Your task to perform on an android device: Do I have any events today? Image 0: 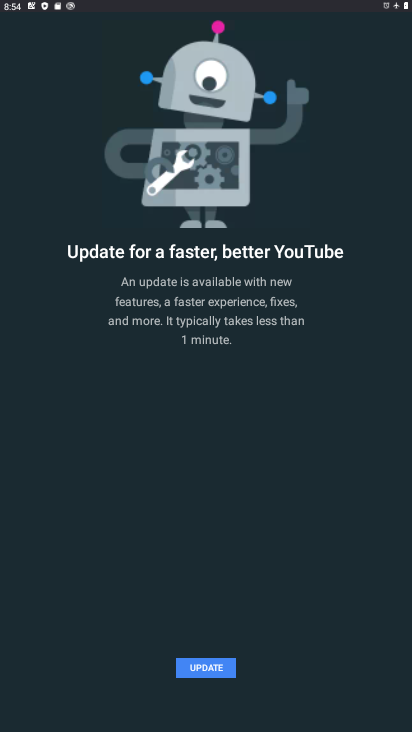
Step 0: press home button
Your task to perform on an android device: Do I have any events today? Image 1: 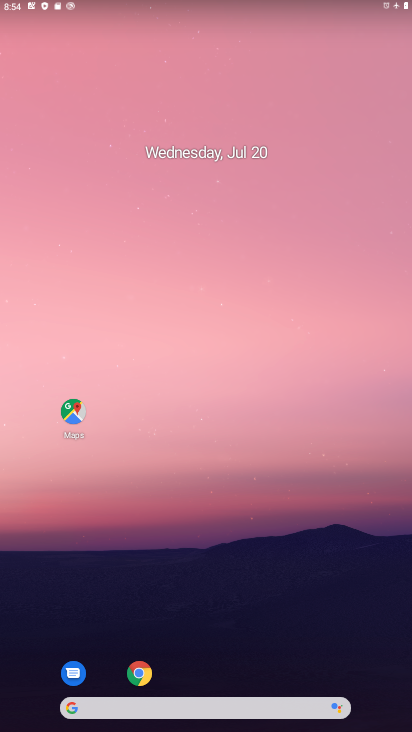
Step 1: drag from (225, 717) to (231, 249)
Your task to perform on an android device: Do I have any events today? Image 2: 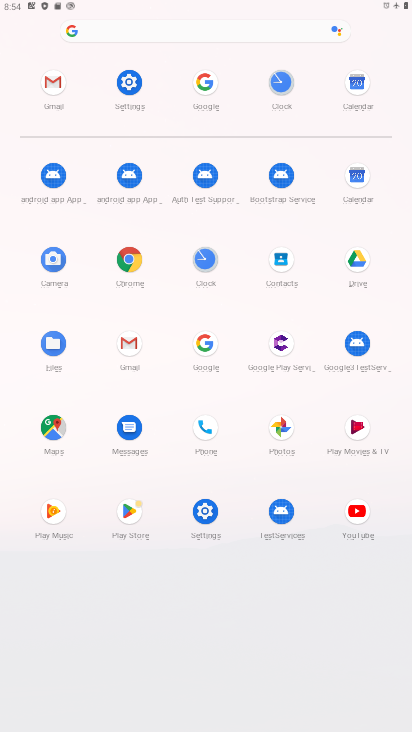
Step 2: click (356, 173)
Your task to perform on an android device: Do I have any events today? Image 3: 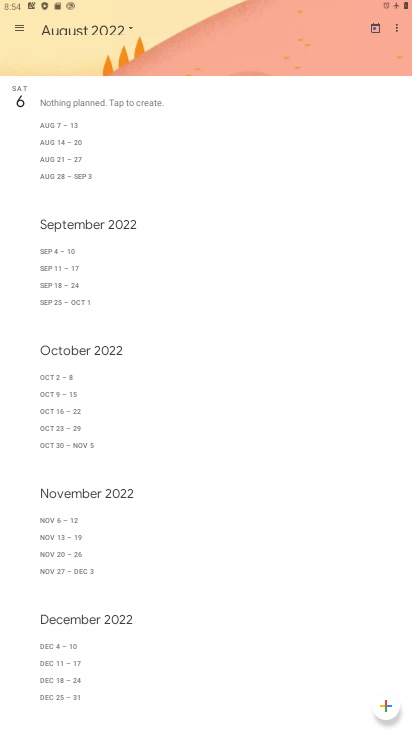
Step 3: click (128, 28)
Your task to perform on an android device: Do I have any events today? Image 4: 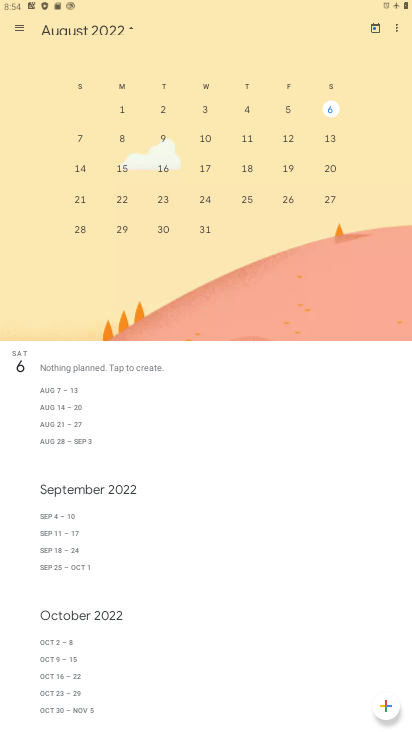
Step 4: drag from (106, 178) to (327, 189)
Your task to perform on an android device: Do I have any events today? Image 5: 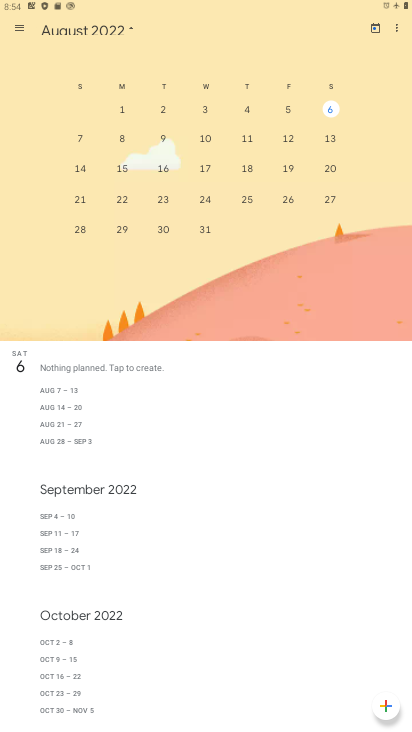
Step 5: drag from (88, 160) to (335, 159)
Your task to perform on an android device: Do I have any events today? Image 6: 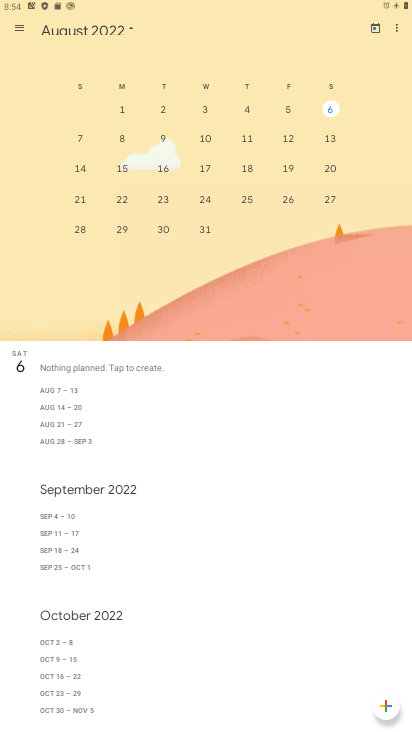
Step 6: drag from (91, 151) to (385, 162)
Your task to perform on an android device: Do I have any events today? Image 7: 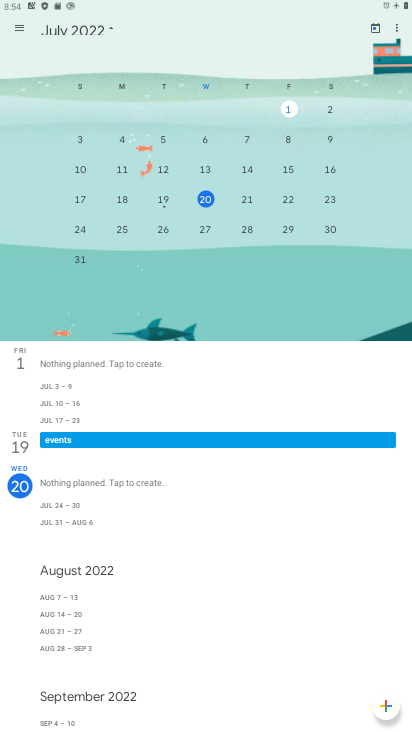
Step 7: click (208, 194)
Your task to perform on an android device: Do I have any events today? Image 8: 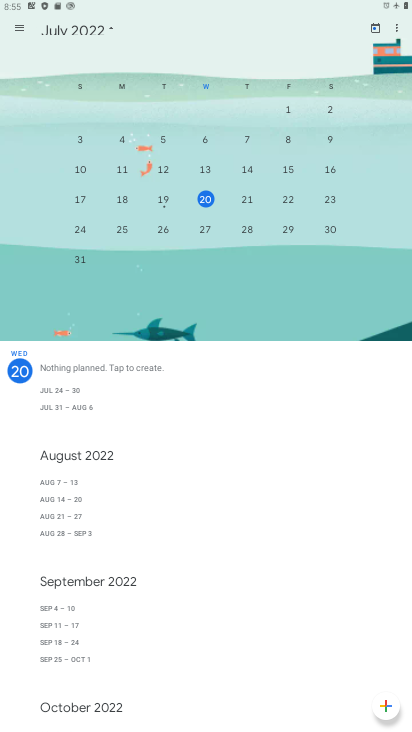
Step 8: click (207, 200)
Your task to perform on an android device: Do I have any events today? Image 9: 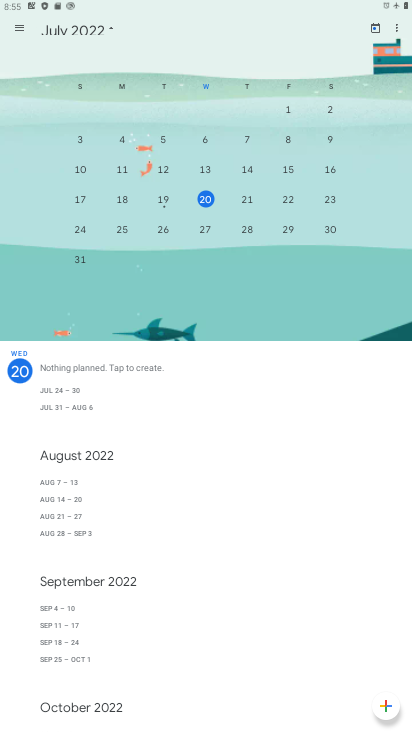
Step 9: click (207, 199)
Your task to perform on an android device: Do I have any events today? Image 10: 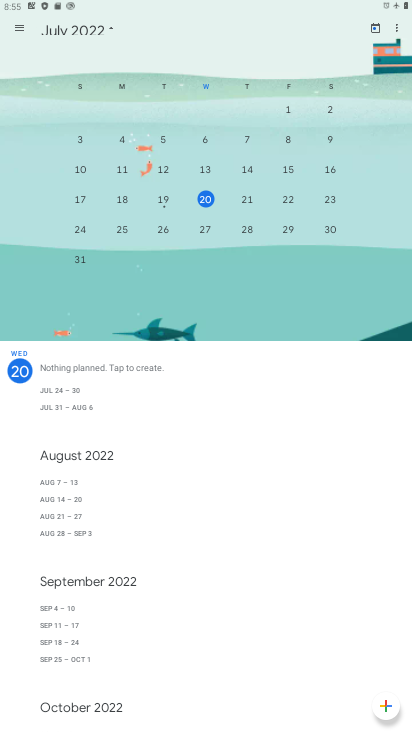
Step 10: click (207, 197)
Your task to perform on an android device: Do I have any events today? Image 11: 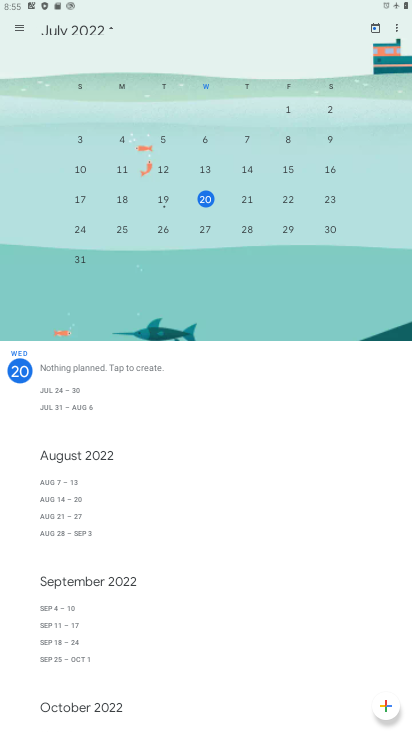
Step 11: click (207, 197)
Your task to perform on an android device: Do I have any events today? Image 12: 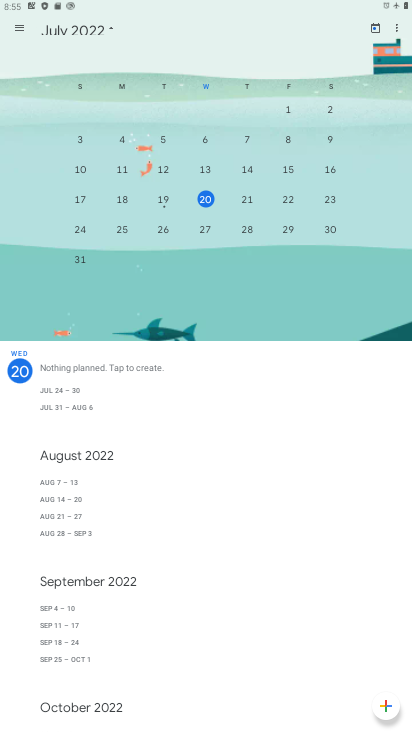
Step 12: click (23, 372)
Your task to perform on an android device: Do I have any events today? Image 13: 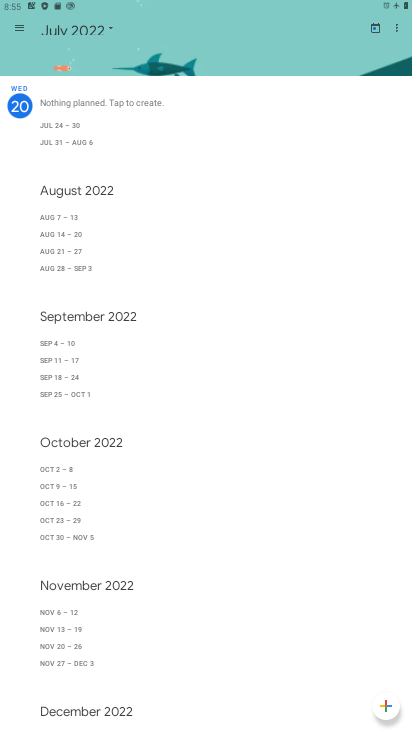
Step 13: task complete